Your task to perform on an android device: open app "File Manager" Image 0: 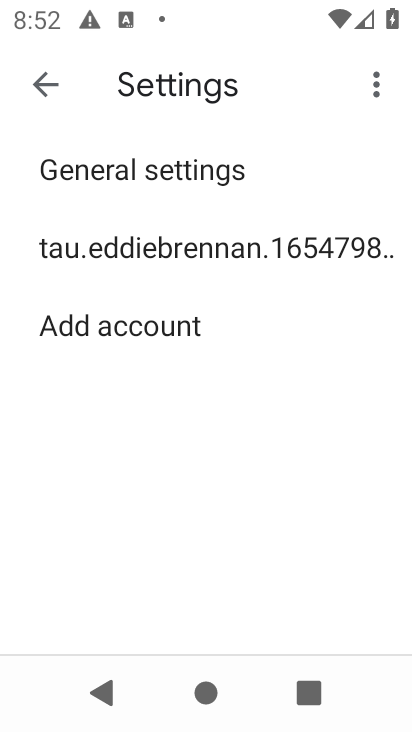
Step 0: press home button
Your task to perform on an android device: open app "File Manager" Image 1: 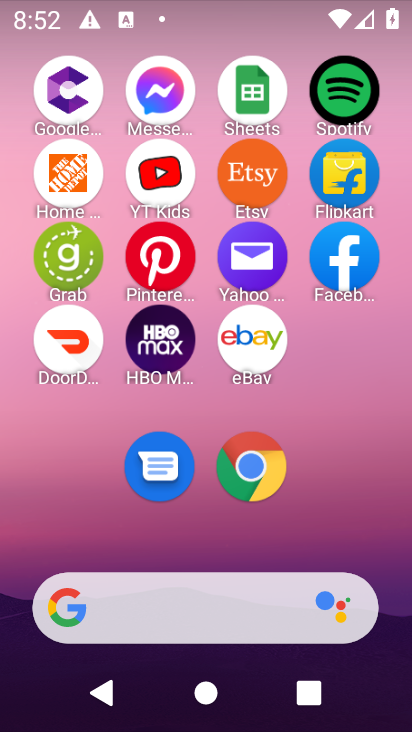
Step 1: drag from (68, 524) to (190, 26)
Your task to perform on an android device: open app "File Manager" Image 2: 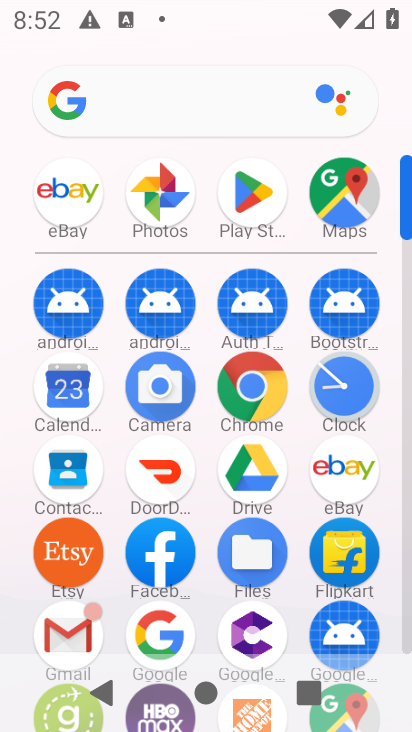
Step 2: click (248, 189)
Your task to perform on an android device: open app "File Manager" Image 3: 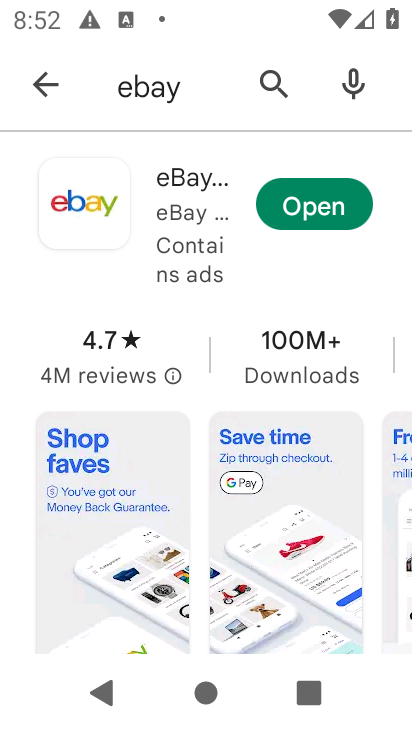
Step 3: click (275, 88)
Your task to perform on an android device: open app "File Manager" Image 4: 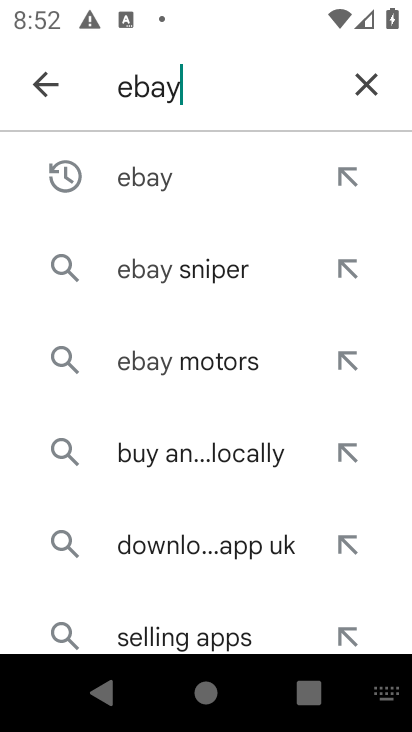
Step 4: click (363, 83)
Your task to perform on an android device: open app "File Manager" Image 5: 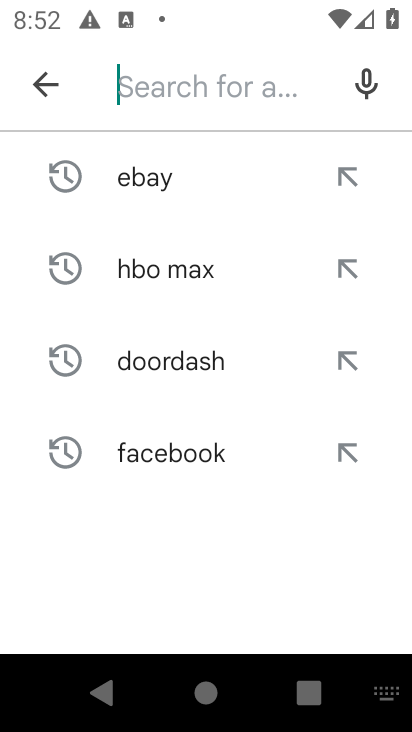
Step 5: click (120, 97)
Your task to perform on an android device: open app "File Manager" Image 6: 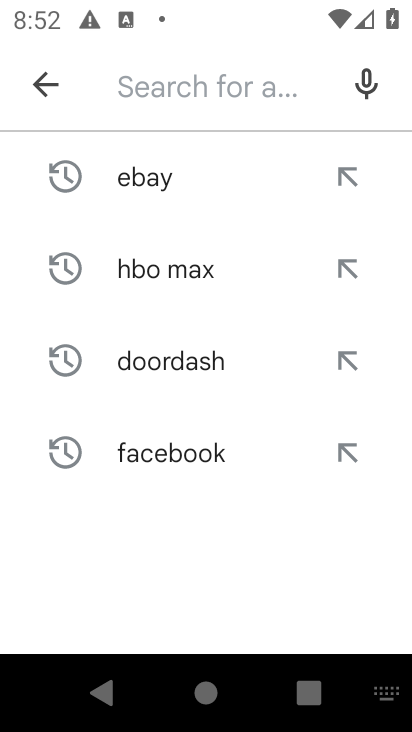
Step 6: type "file manager"
Your task to perform on an android device: open app "File Manager" Image 7: 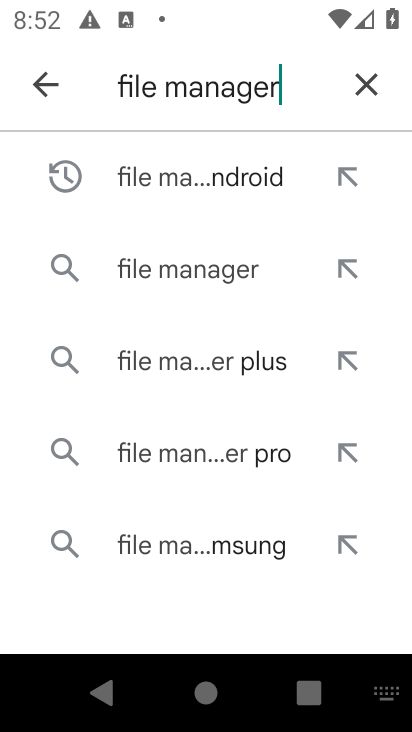
Step 7: click (135, 254)
Your task to perform on an android device: open app "File Manager" Image 8: 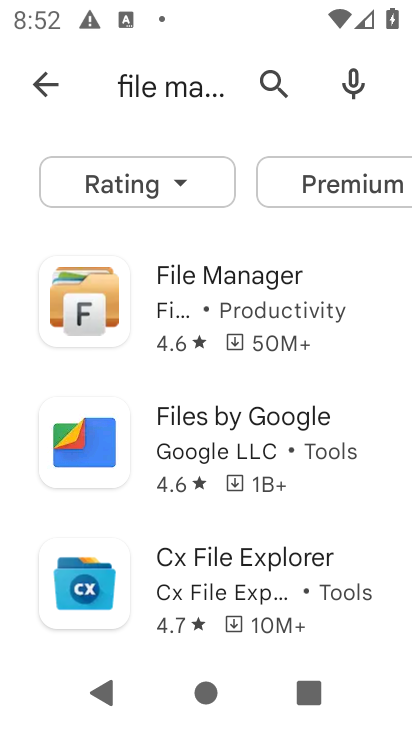
Step 8: click (245, 308)
Your task to perform on an android device: open app "File Manager" Image 9: 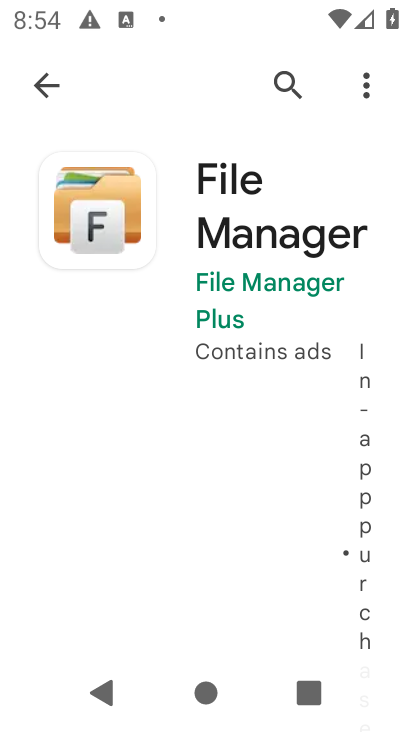
Step 9: task complete